Your task to perform on an android device: turn on showing notifications on the lock screen Image 0: 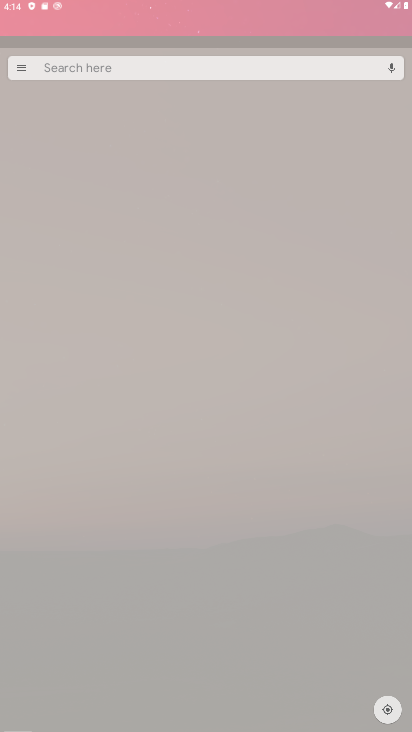
Step 0: press back button
Your task to perform on an android device: turn on showing notifications on the lock screen Image 1: 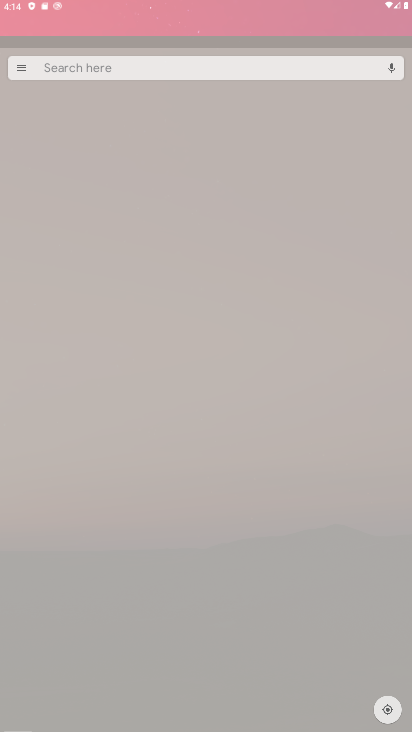
Step 1: drag from (213, 157) to (165, 92)
Your task to perform on an android device: turn on showing notifications on the lock screen Image 2: 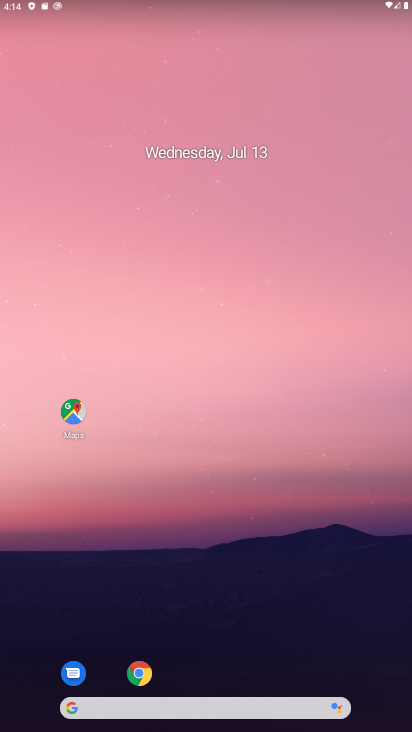
Step 2: press back button
Your task to perform on an android device: turn on showing notifications on the lock screen Image 3: 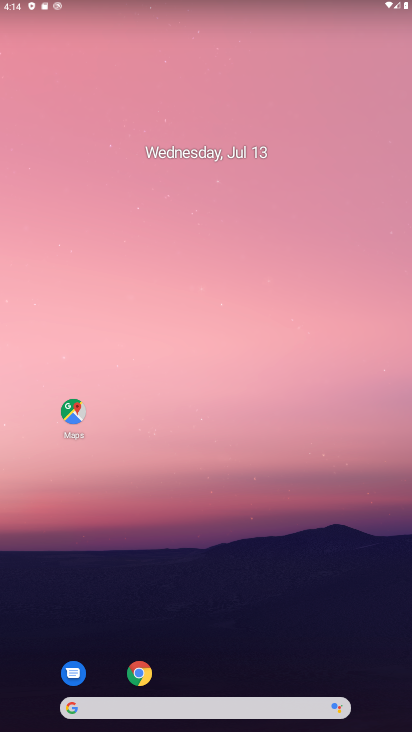
Step 3: drag from (239, 561) to (186, 247)
Your task to perform on an android device: turn on showing notifications on the lock screen Image 4: 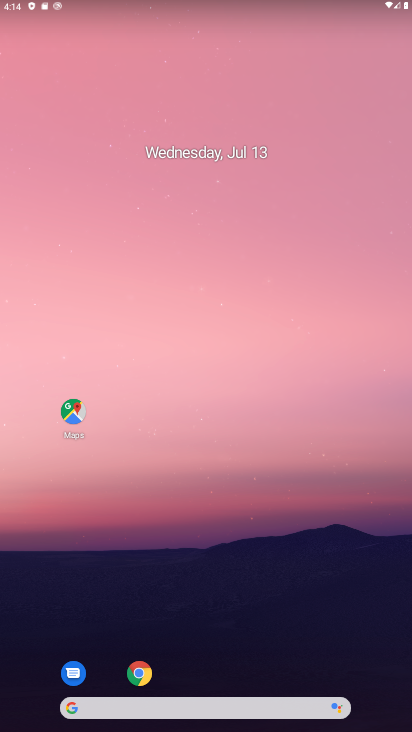
Step 4: drag from (255, 583) to (164, 56)
Your task to perform on an android device: turn on showing notifications on the lock screen Image 5: 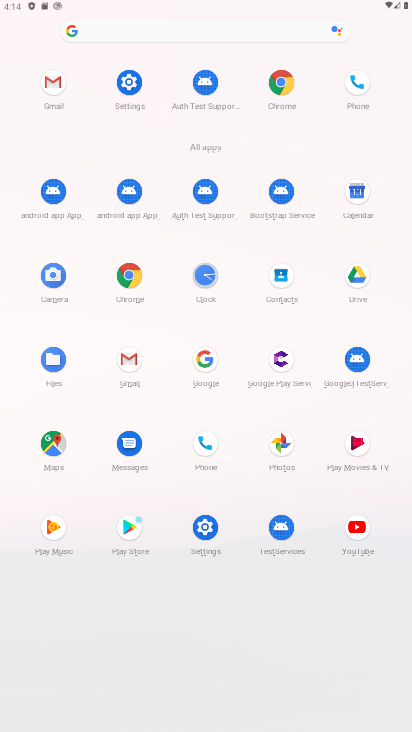
Step 5: click (205, 528)
Your task to perform on an android device: turn on showing notifications on the lock screen Image 6: 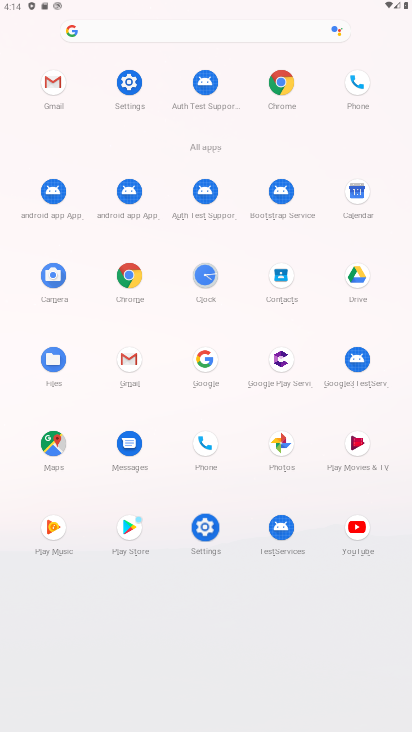
Step 6: click (205, 529)
Your task to perform on an android device: turn on showing notifications on the lock screen Image 7: 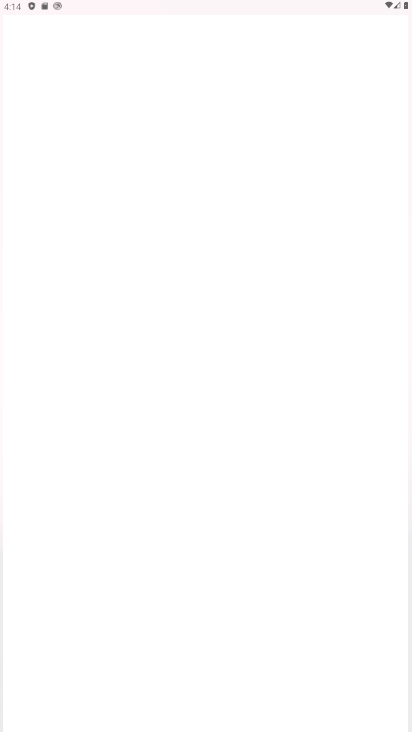
Step 7: click (205, 529)
Your task to perform on an android device: turn on showing notifications on the lock screen Image 8: 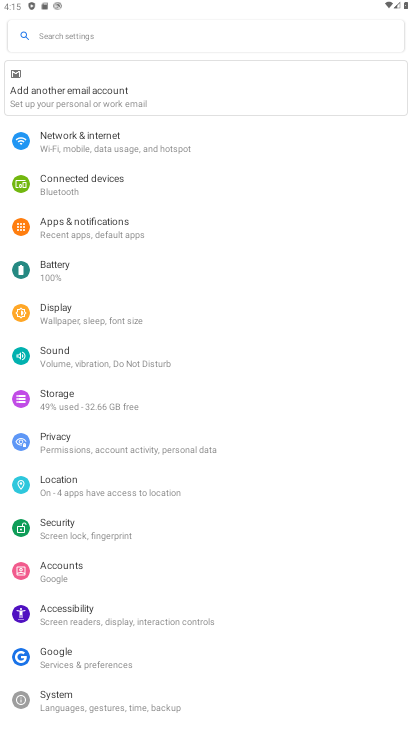
Step 8: click (80, 490)
Your task to perform on an android device: turn on showing notifications on the lock screen Image 9: 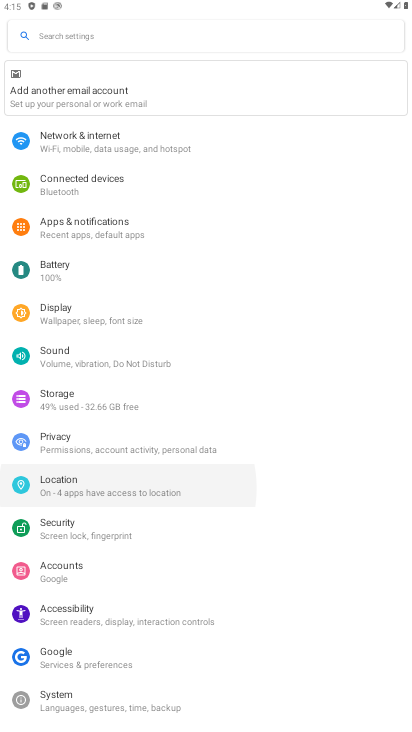
Step 9: click (80, 490)
Your task to perform on an android device: turn on showing notifications on the lock screen Image 10: 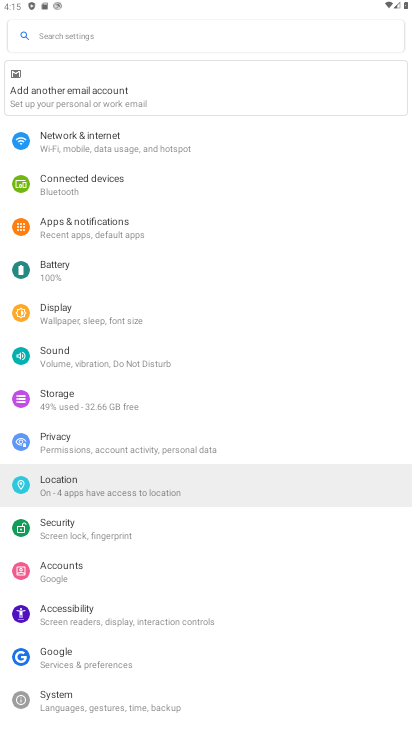
Step 10: click (80, 490)
Your task to perform on an android device: turn on showing notifications on the lock screen Image 11: 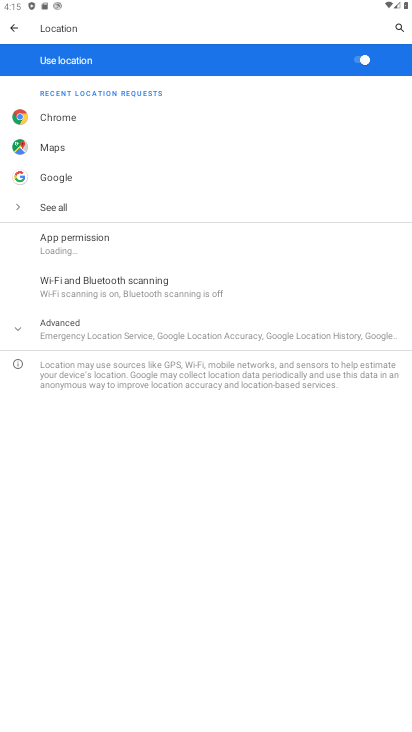
Step 11: click (11, 23)
Your task to perform on an android device: turn on showing notifications on the lock screen Image 12: 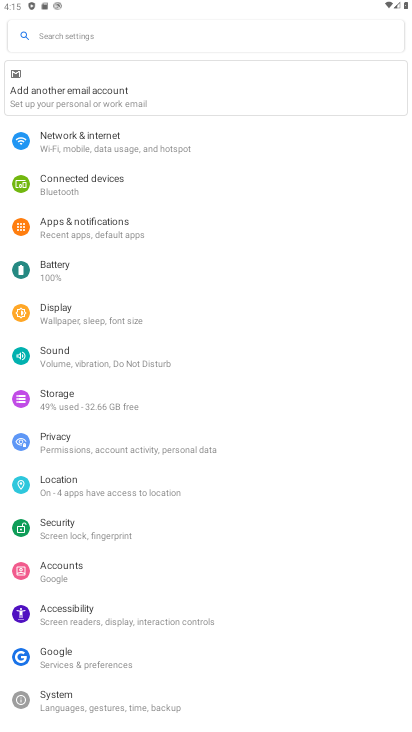
Step 12: click (78, 220)
Your task to perform on an android device: turn on showing notifications on the lock screen Image 13: 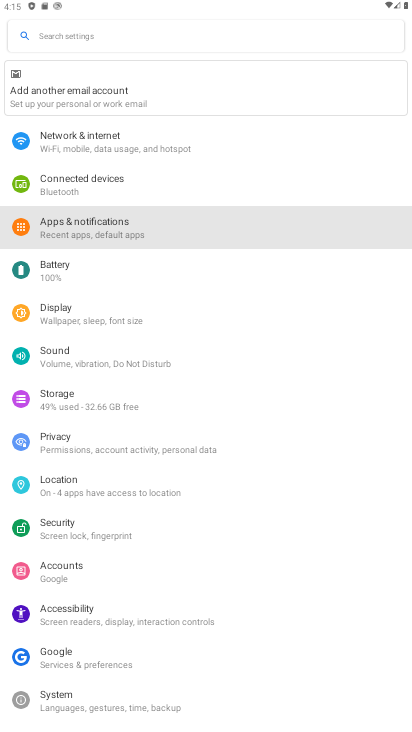
Step 13: click (78, 220)
Your task to perform on an android device: turn on showing notifications on the lock screen Image 14: 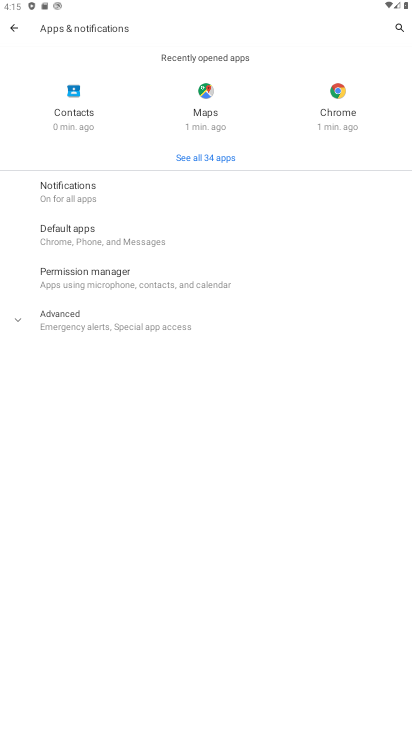
Step 14: click (77, 174)
Your task to perform on an android device: turn on showing notifications on the lock screen Image 15: 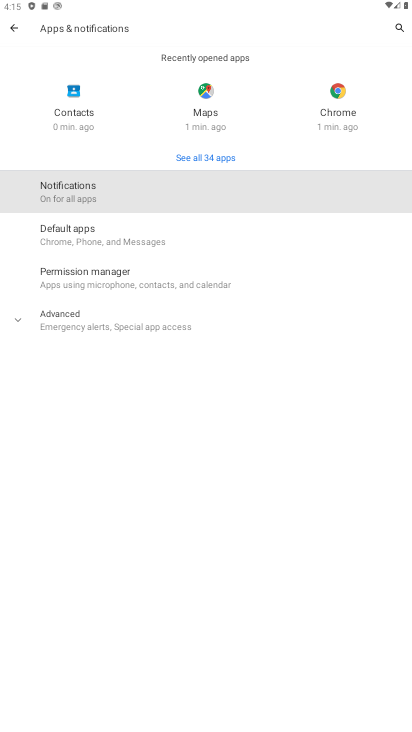
Step 15: click (84, 178)
Your task to perform on an android device: turn on showing notifications on the lock screen Image 16: 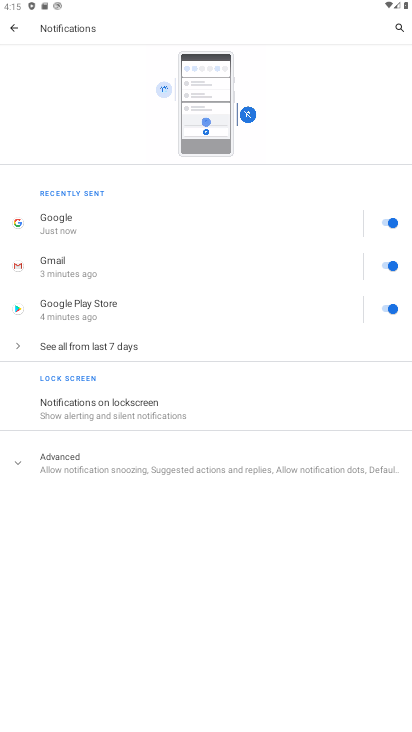
Step 16: click (118, 406)
Your task to perform on an android device: turn on showing notifications on the lock screen Image 17: 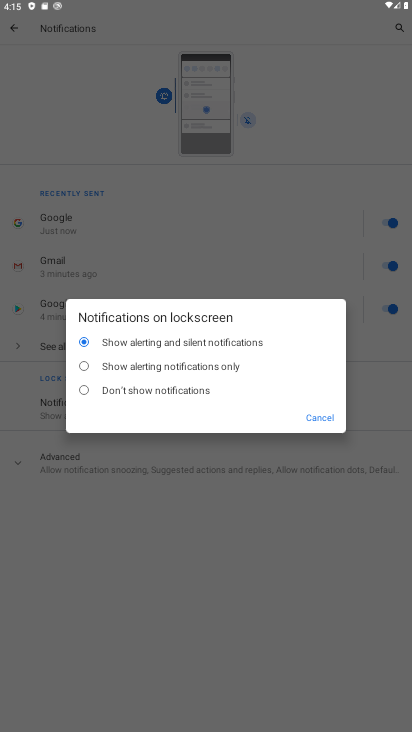
Step 17: click (324, 410)
Your task to perform on an android device: turn on showing notifications on the lock screen Image 18: 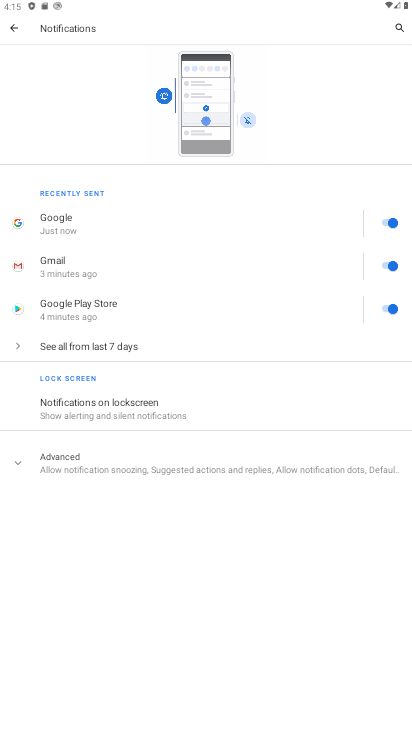
Step 18: task complete